Your task to perform on an android device: allow cookies in the chrome app Image 0: 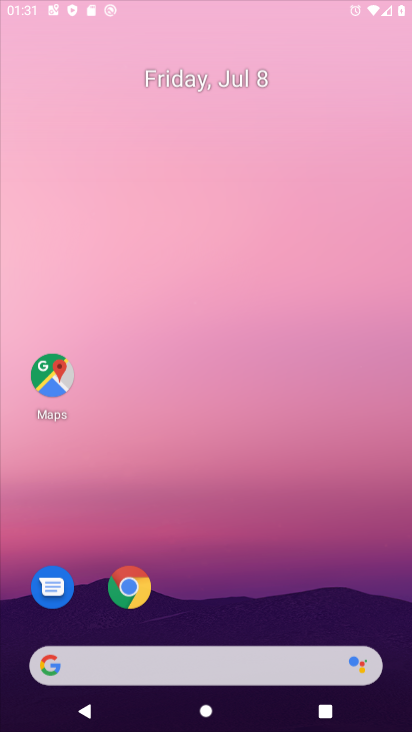
Step 0: click (325, 133)
Your task to perform on an android device: allow cookies in the chrome app Image 1: 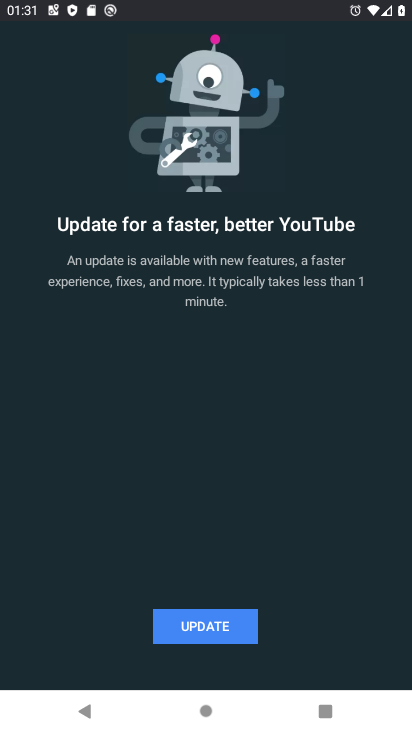
Step 1: press home button
Your task to perform on an android device: allow cookies in the chrome app Image 2: 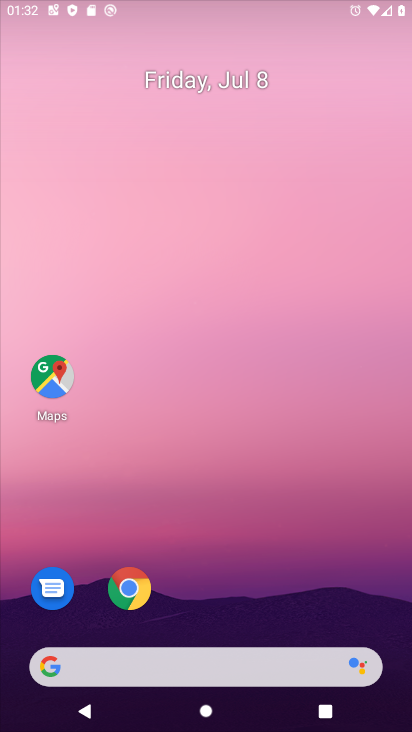
Step 2: drag from (170, 572) to (207, 0)
Your task to perform on an android device: allow cookies in the chrome app Image 3: 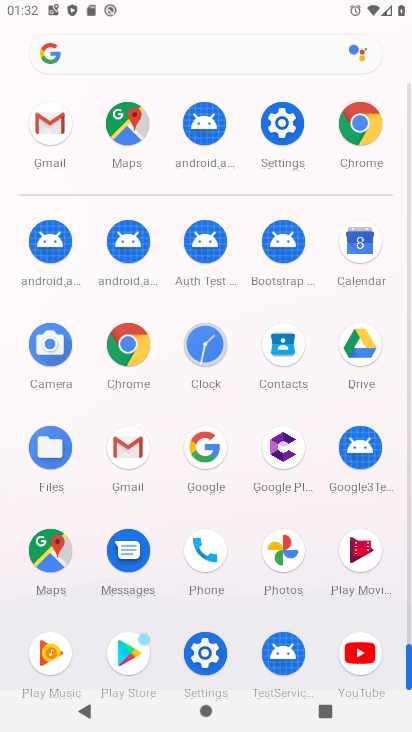
Step 3: click (124, 341)
Your task to perform on an android device: allow cookies in the chrome app Image 4: 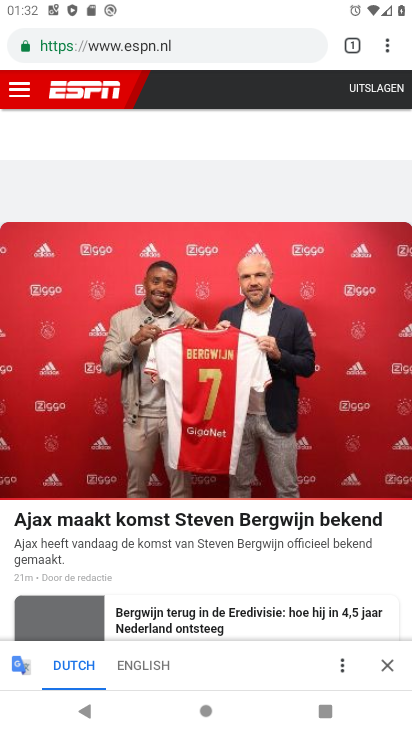
Step 4: click (392, 32)
Your task to perform on an android device: allow cookies in the chrome app Image 5: 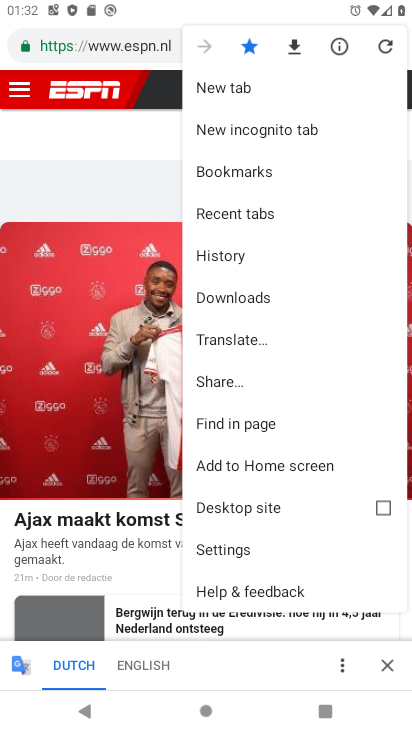
Step 5: click (262, 543)
Your task to perform on an android device: allow cookies in the chrome app Image 6: 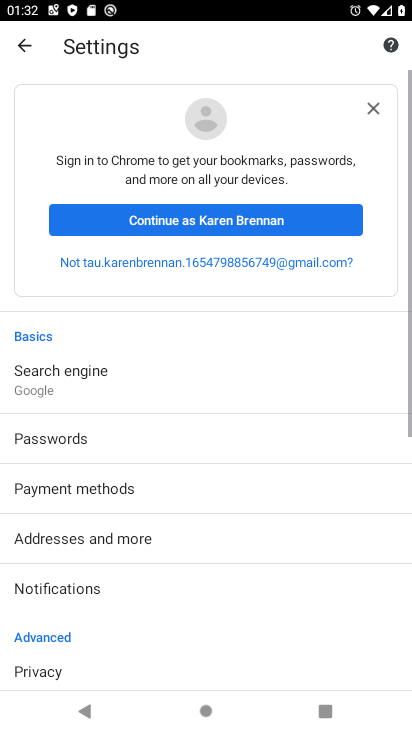
Step 6: drag from (257, 509) to (282, 191)
Your task to perform on an android device: allow cookies in the chrome app Image 7: 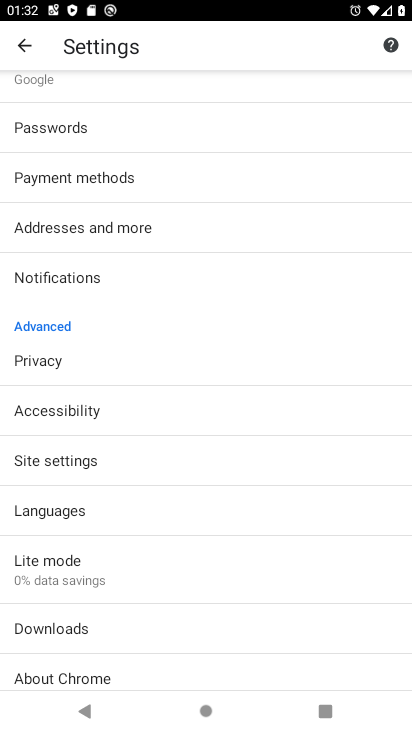
Step 7: drag from (182, 596) to (181, 316)
Your task to perform on an android device: allow cookies in the chrome app Image 8: 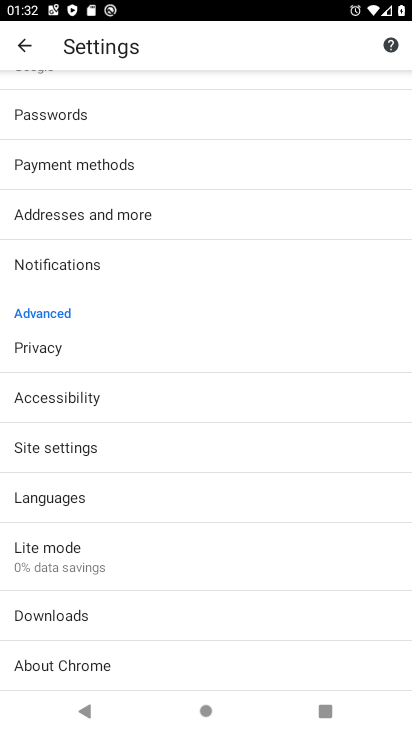
Step 8: click (106, 442)
Your task to perform on an android device: allow cookies in the chrome app Image 9: 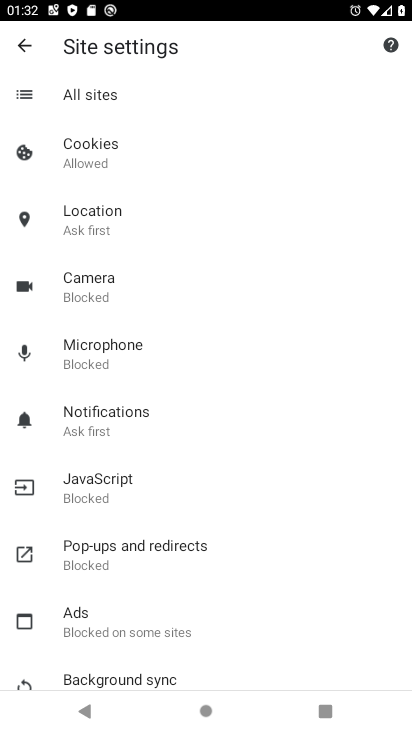
Step 9: click (175, 141)
Your task to perform on an android device: allow cookies in the chrome app Image 10: 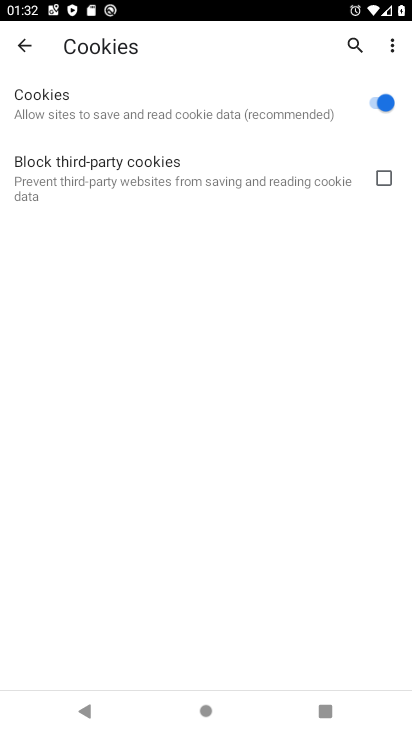
Step 10: task complete